Your task to perform on an android device: What's the news in Peru? Image 0: 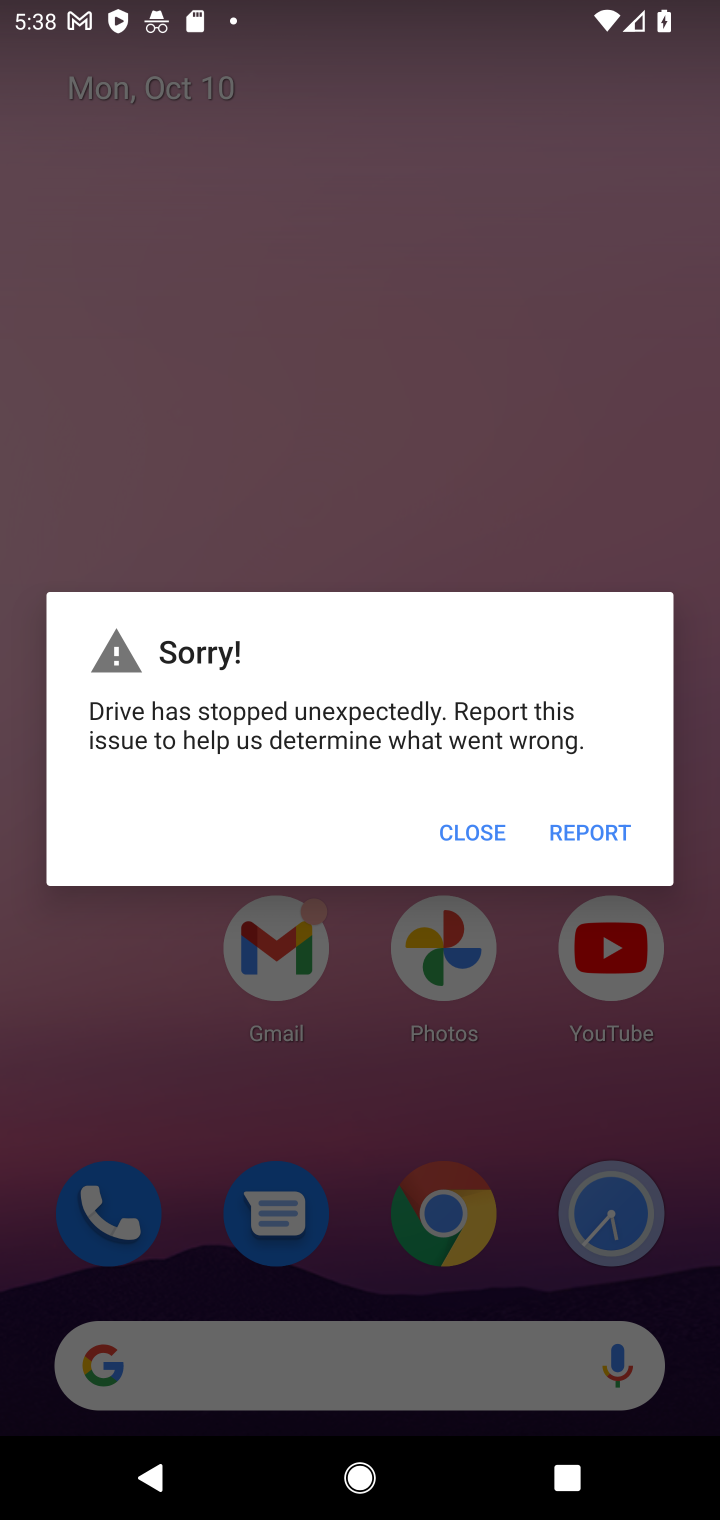
Step 0: click (476, 816)
Your task to perform on an android device: What's the news in Peru? Image 1: 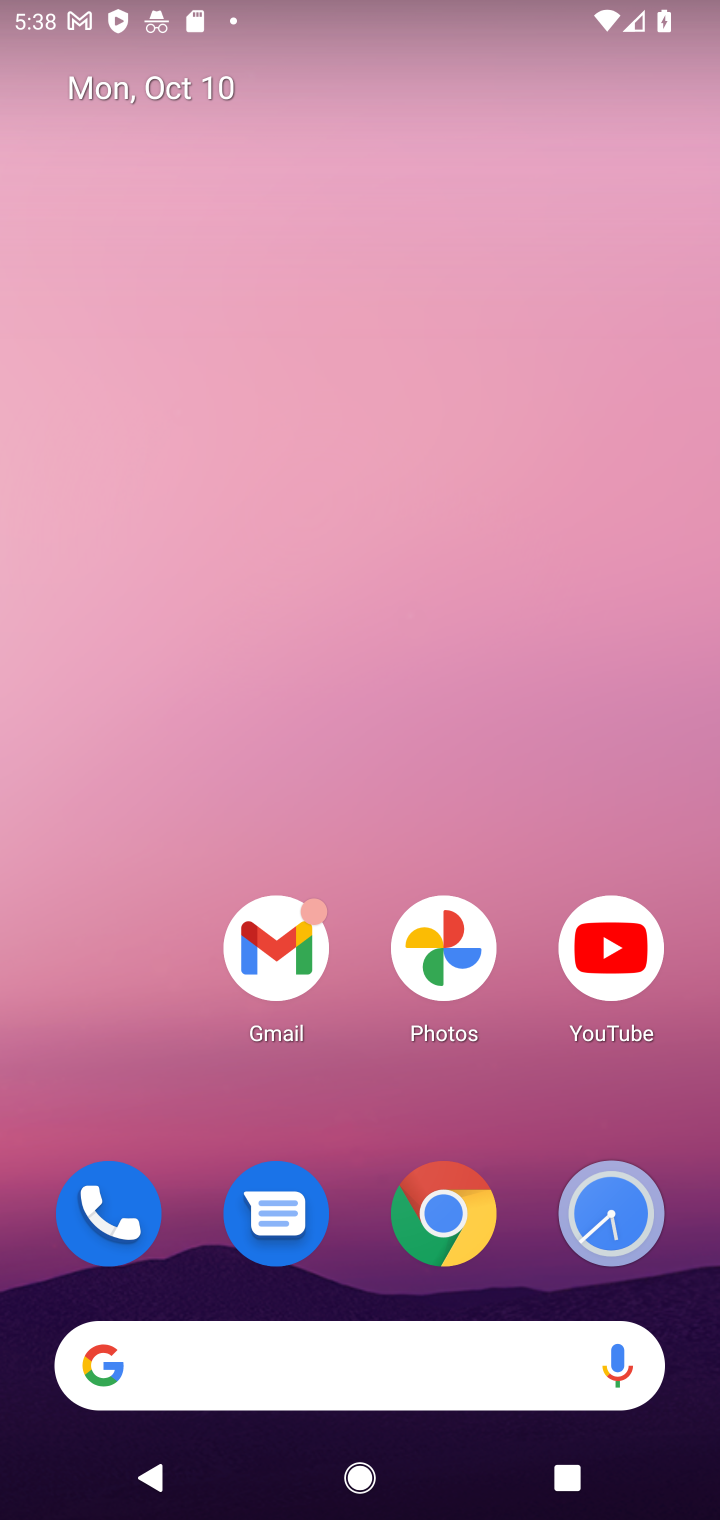
Step 1: click (333, 1371)
Your task to perform on an android device: What's the news in Peru? Image 2: 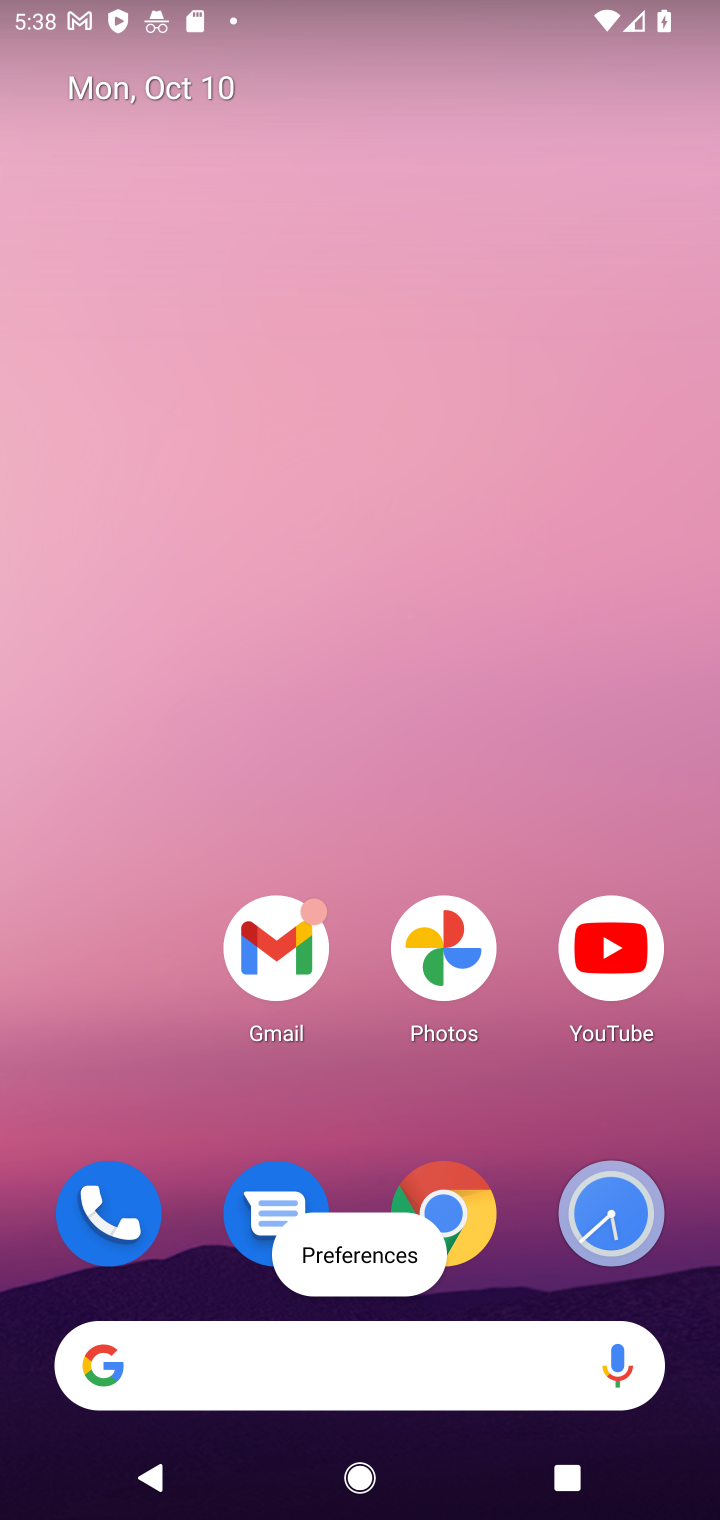
Step 2: click (203, 1385)
Your task to perform on an android device: What's the news in Peru? Image 3: 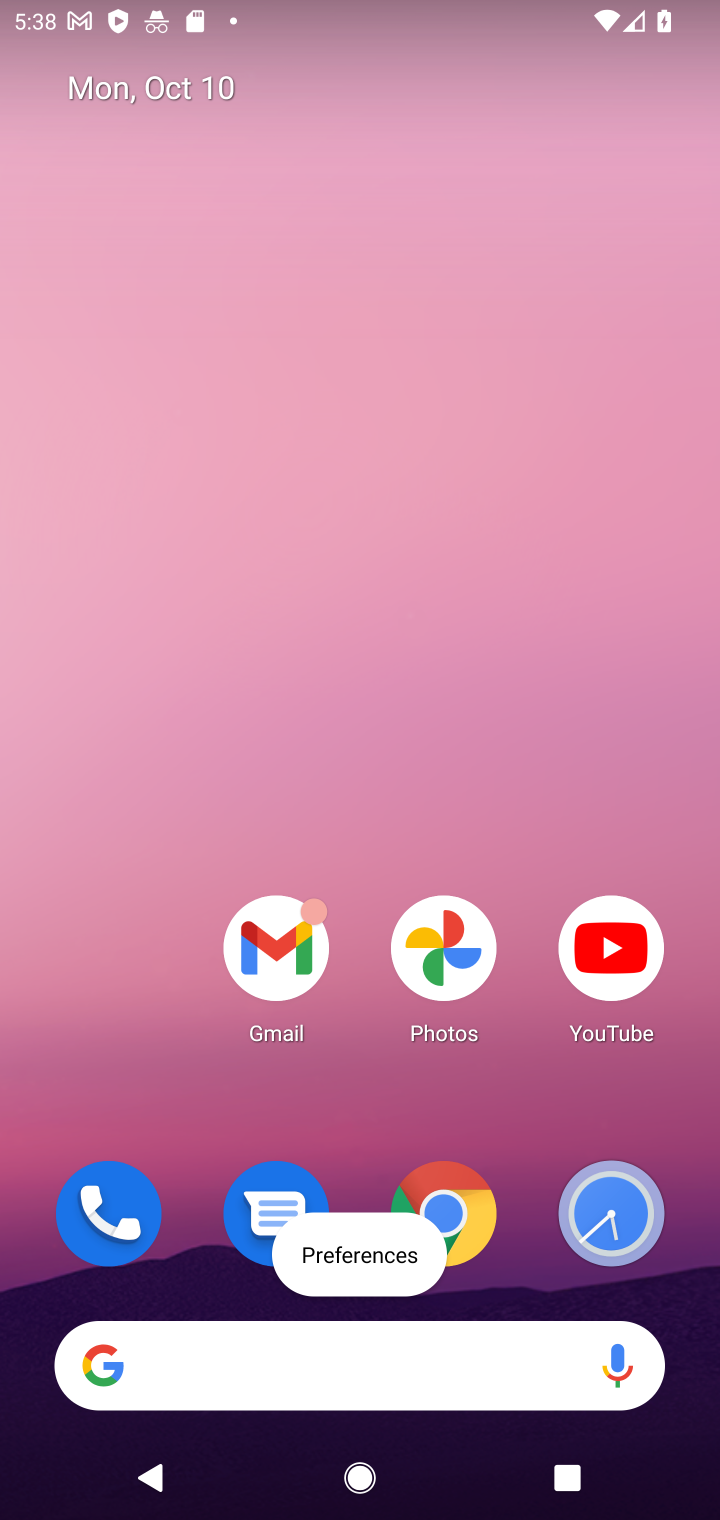
Step 3: click (320, 1362)
Your task to perform on an android device: What's the news in Peru? Image 4: 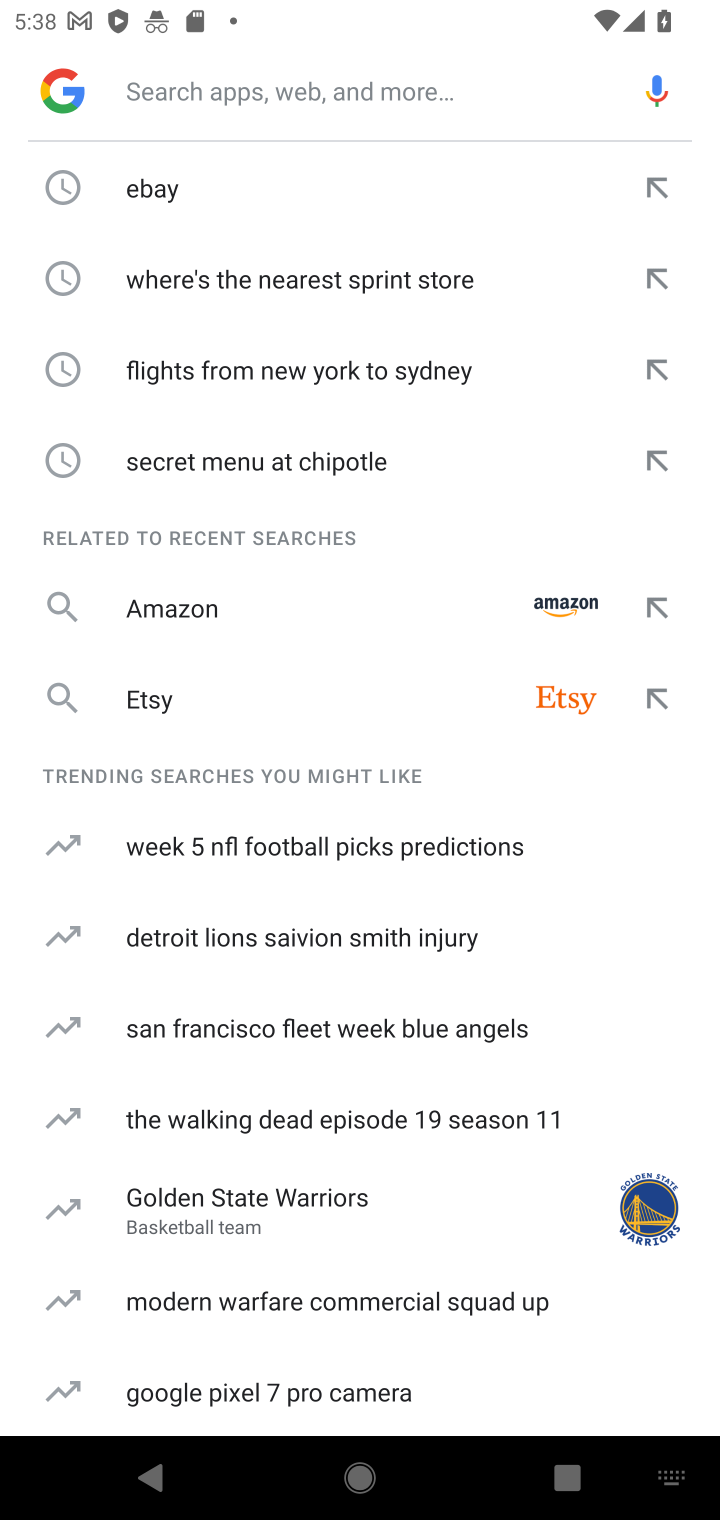
Step 4: click (229, 90)
Your task to perform on an android device: What's the news in Peru? Image 5: 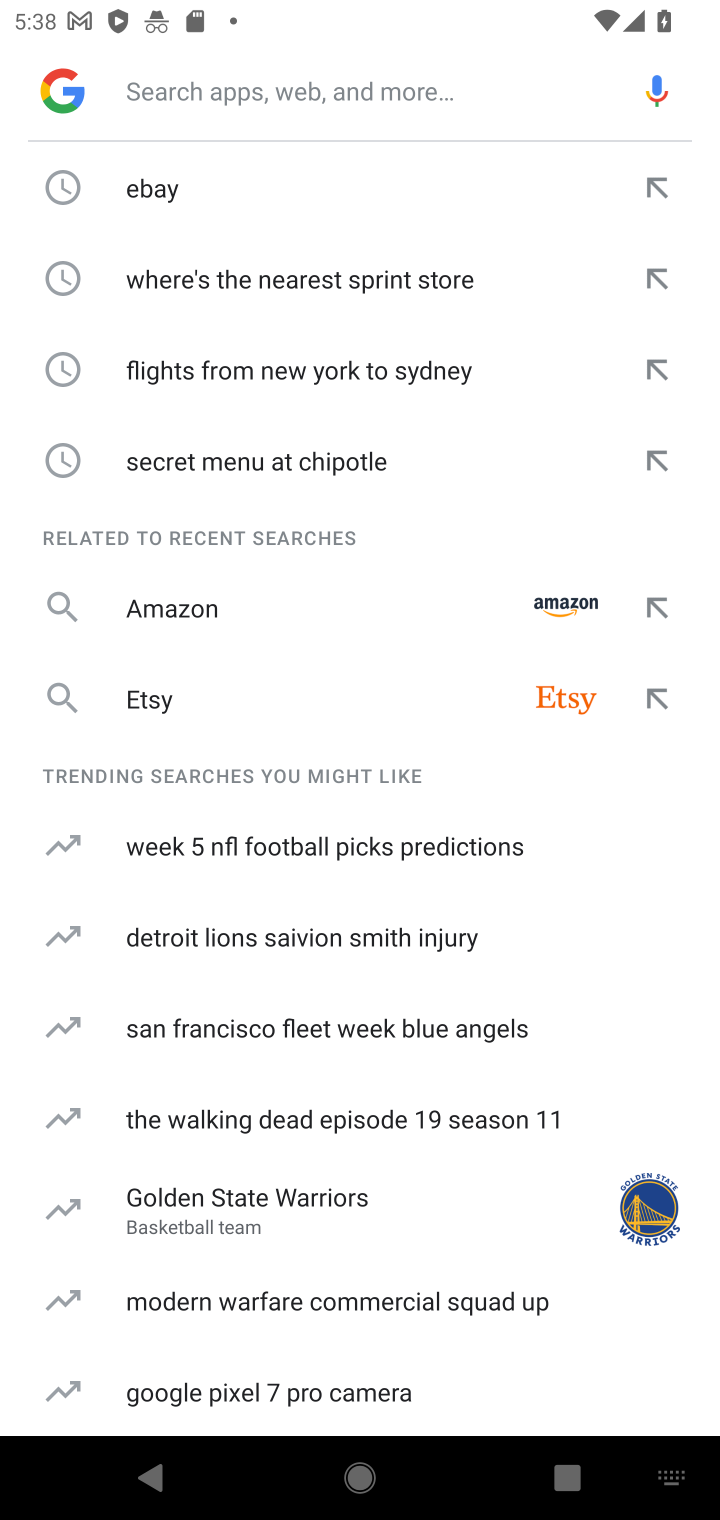
Step 5: type "What's the news in Peru?"
Your task to perform on an android device: What's the news in Peru? Image 6: 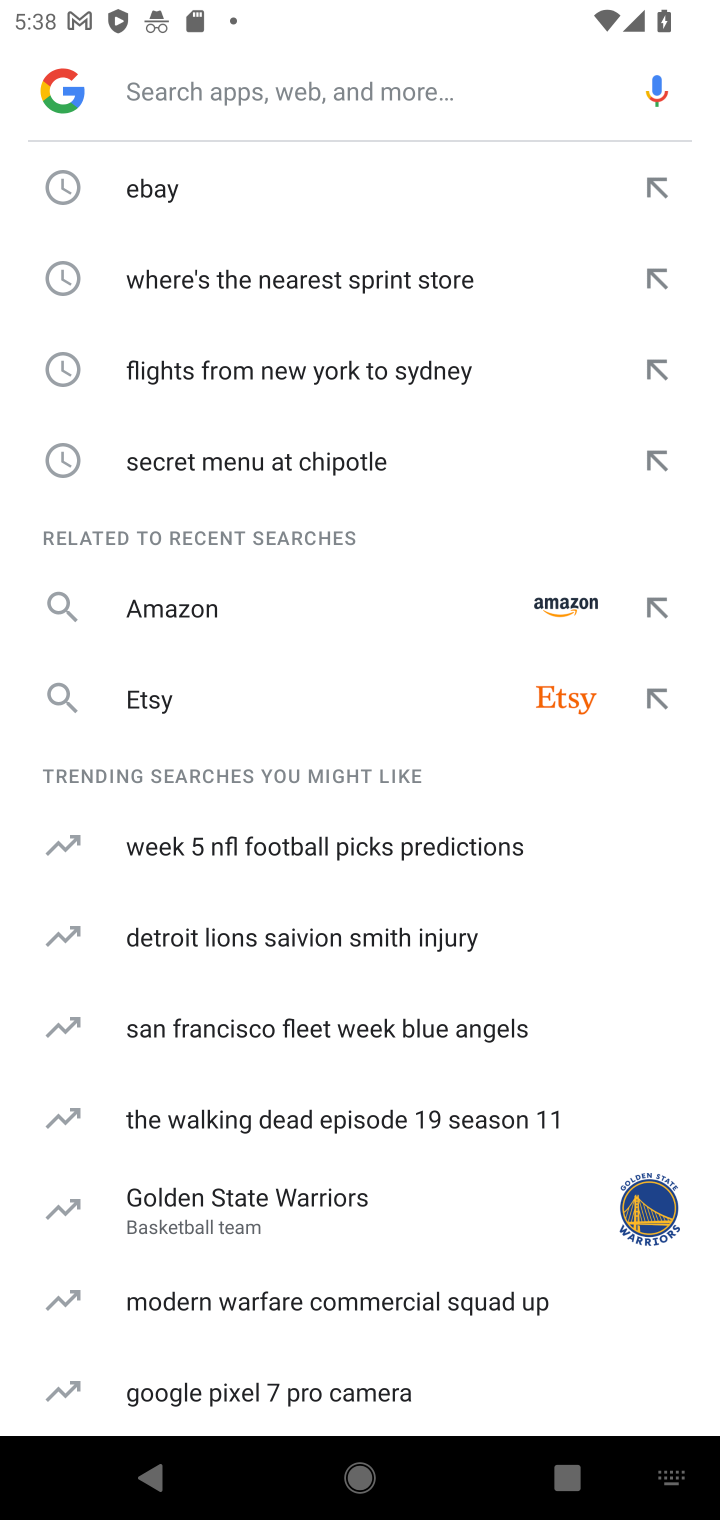
Step 6: click (388, 115)
Your task to perform on an android device: What's the news in Peru? Image 7: 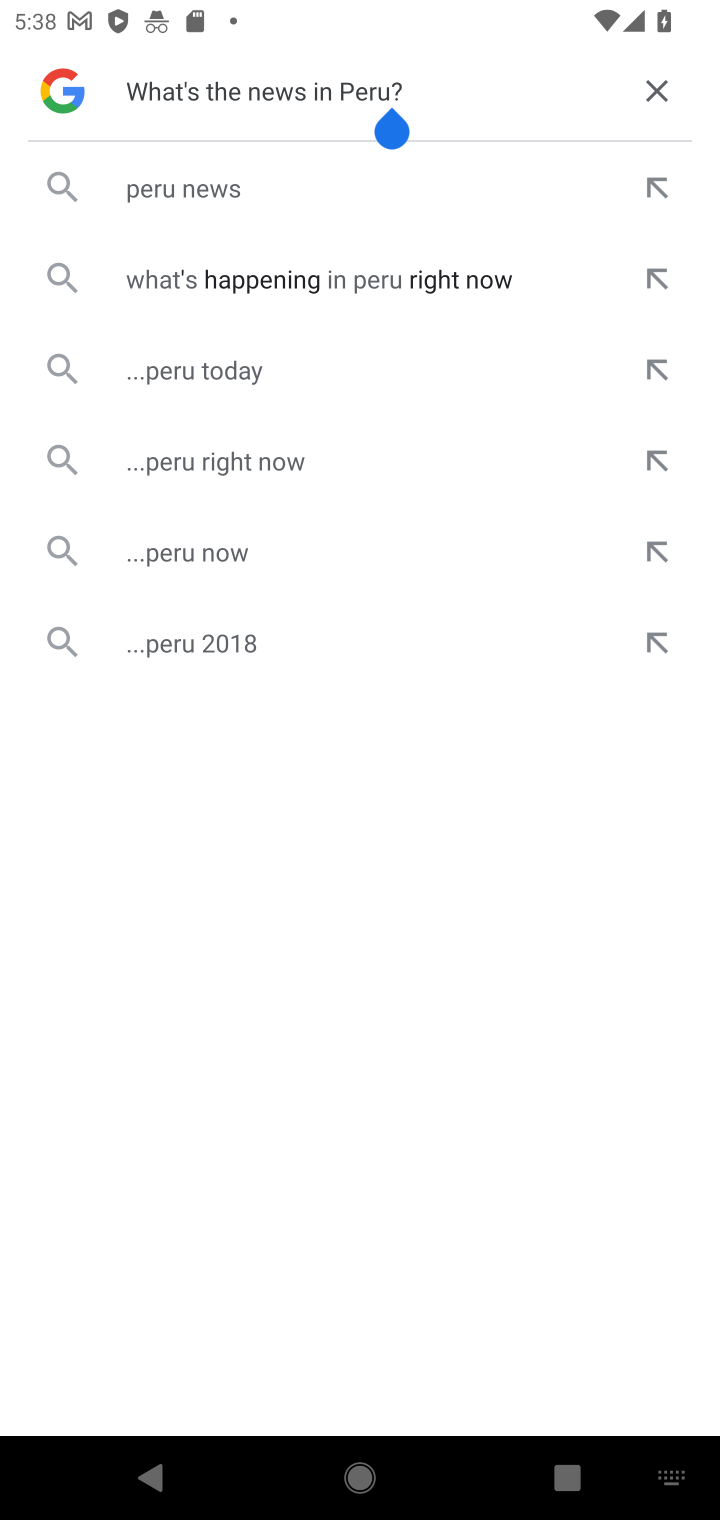
Step 7: click (497, 85)
Your task to perform on an android device: What's the news in Peru? Image 8: 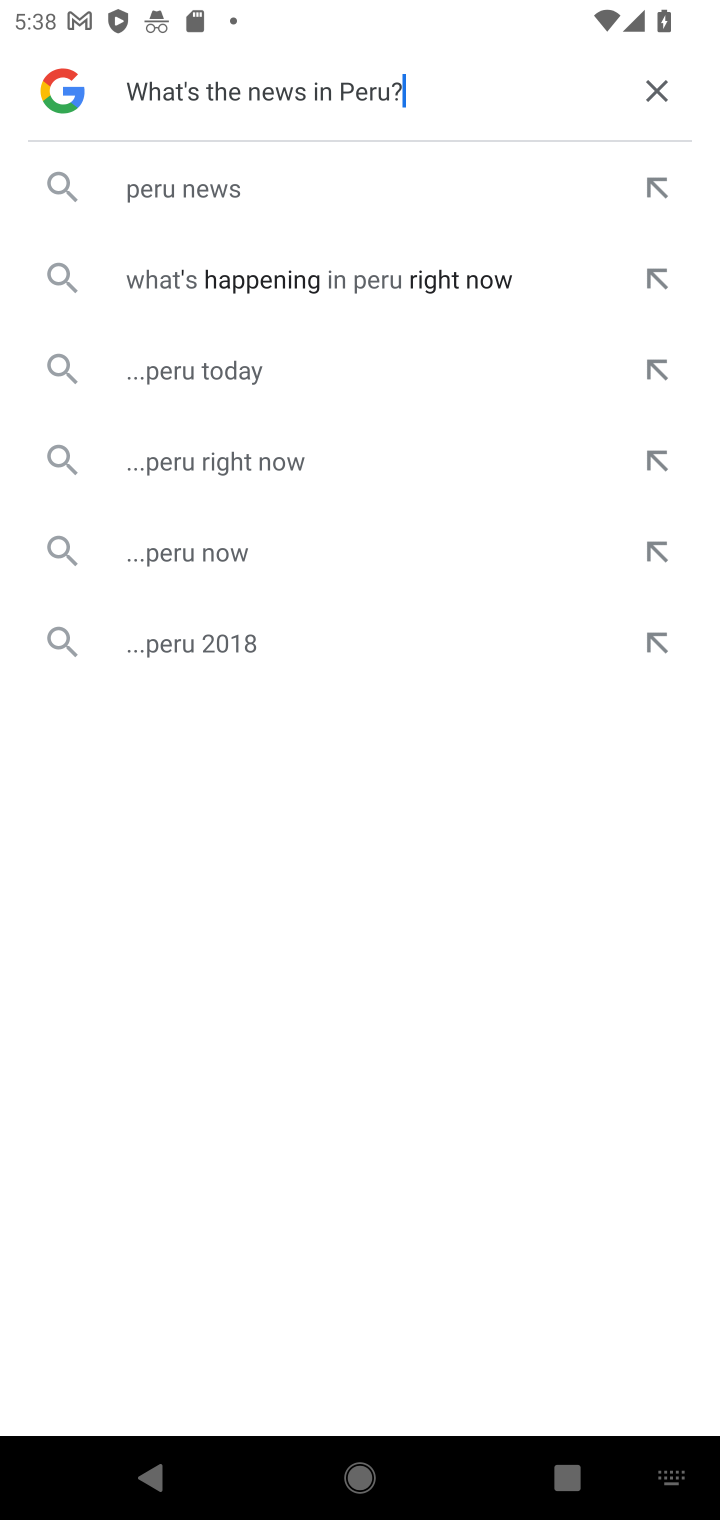
Step 8: click (304, 164)
Your task to perform on an android device: What's the news in Peru? Image 9: 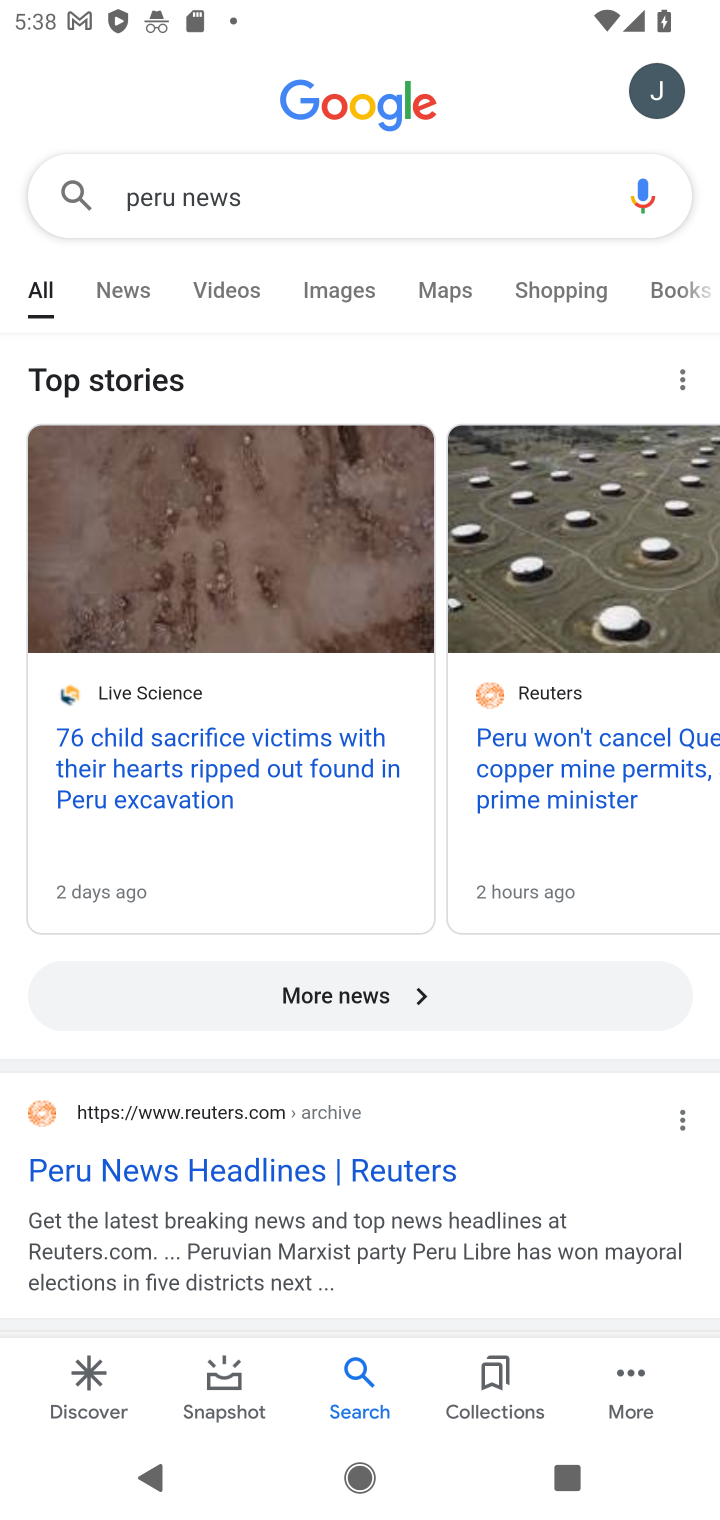
Step 9: task complete